Your task to perform on an android device: Open CNN.com Image 0: 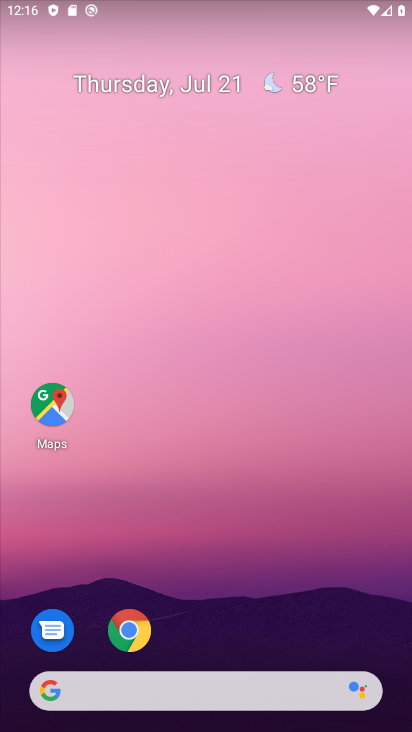
Step 0: click (128, 631)
Your task to perform on an android device: Open CNN.com Image 1: 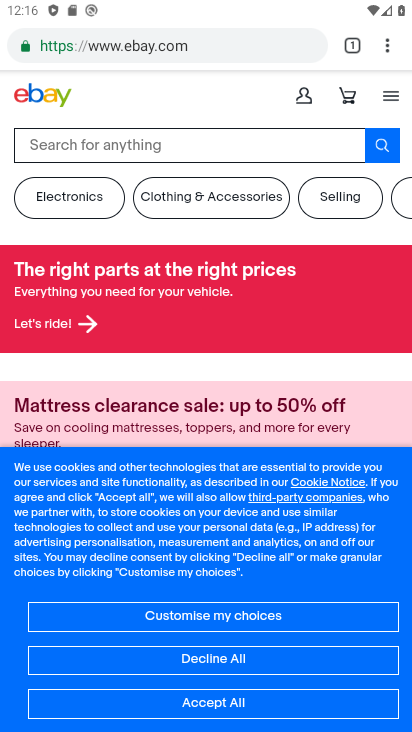
Step 1: click (178, 49)
Your task to perform on an android device: Open CNN.com Image 2: 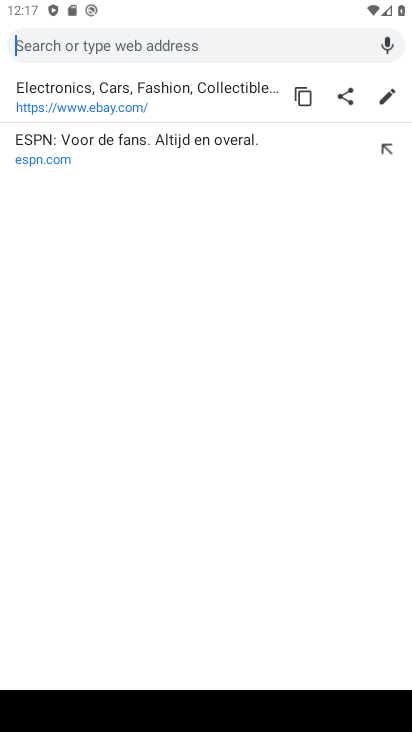
Step 2: type "cnn.com"
Your task to perform on an android device: Open CNN.com Image 3: 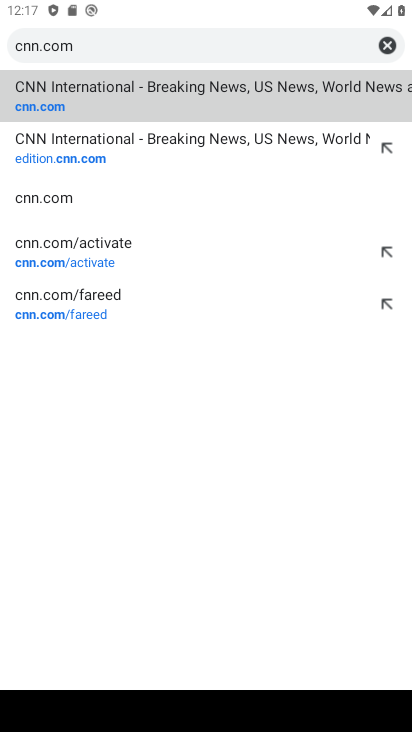
Step 3: click (137, 110)
Your task to perform on an android device: Open CNN.com Image 4: 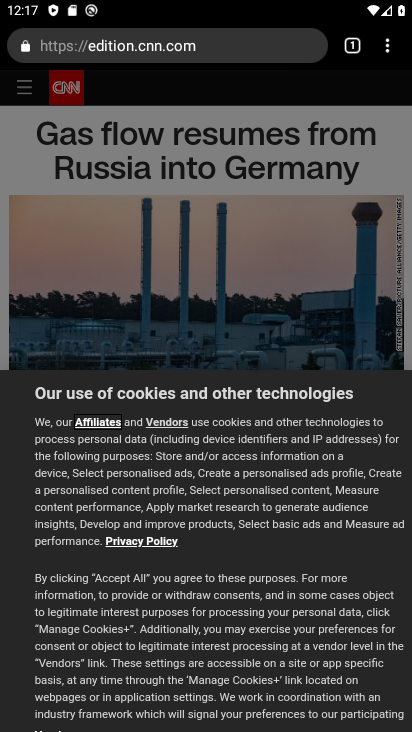
Step 4: task complete